Your task to perform on an android device: turn on wifi Image 0: 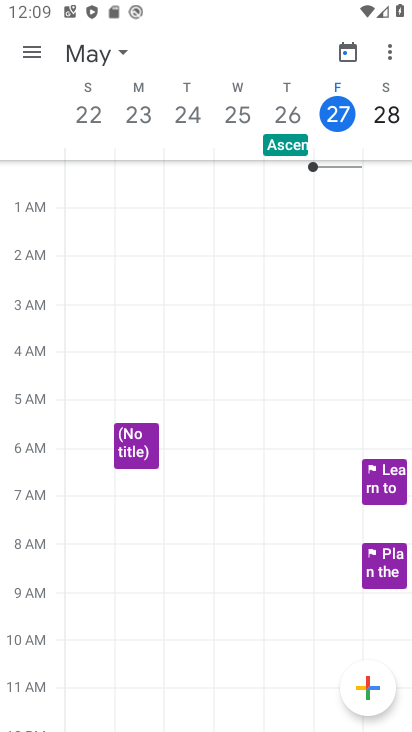
Step 0: press home button
Your task to perform on an android device: turn on wifi Image 1: 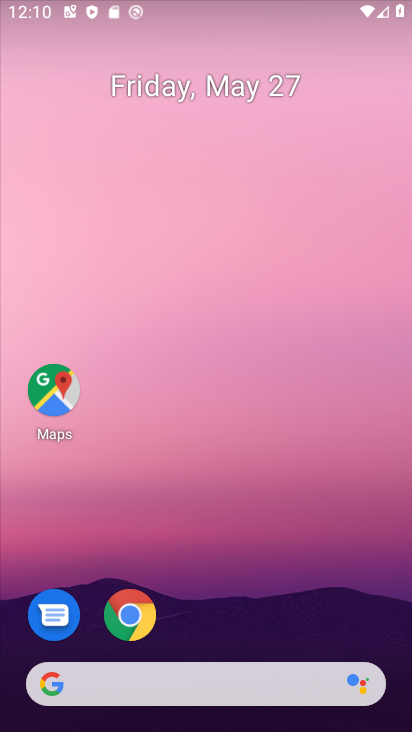
Step 1: drag from (200, 630) to (243, 18)
Your task to perform on an android device: turn on wifi Image 2: 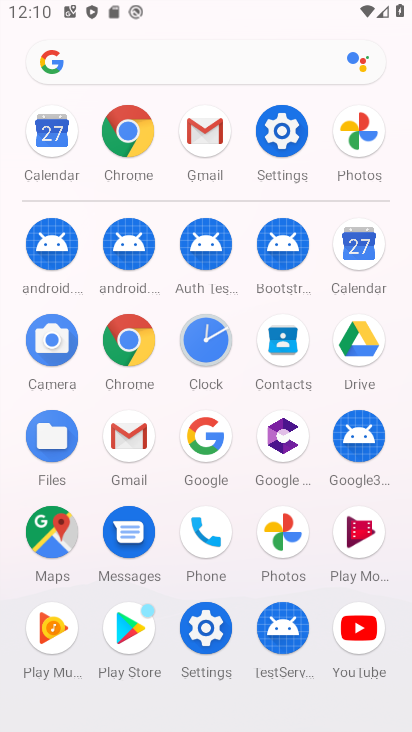
Step 2: click (291, 134)
Your task to perform on an android device: turn on wifi Image 3: 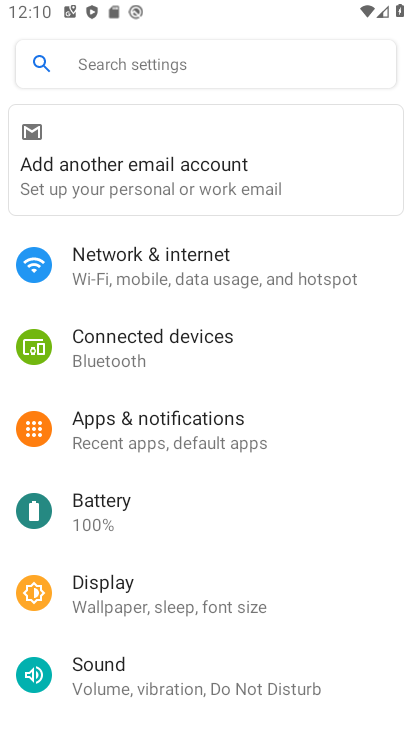
Step 3: click (196, 290)
Your task to perform on an android device: turn on wifi Image 4: 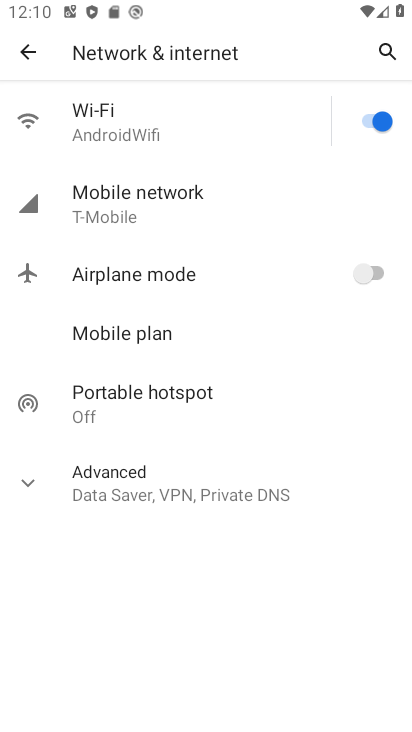
Step 4: task complete